Your task to perform on an android device: open the mobile data screen to see how much data has been used Image 0: 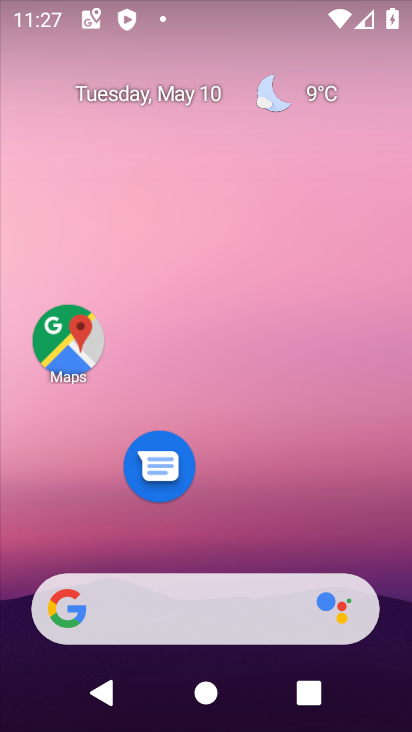
Step 0: drag from (263, 516) to (235, 122)
Your task to perform on an android device: open the mobile data screen to see how much data has been used Image 1: 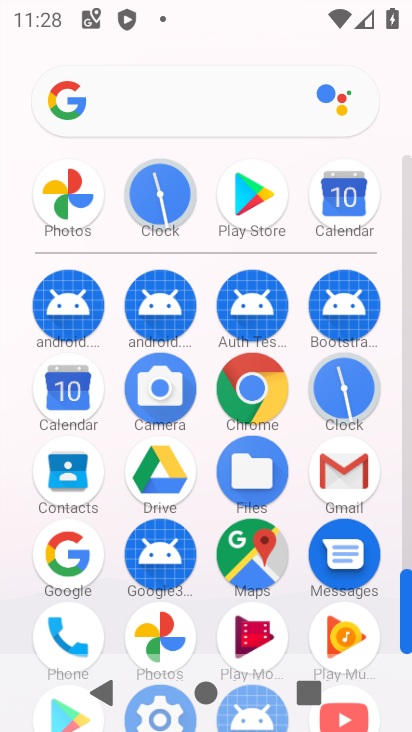
Step 1: drag from (197, 534) to (221, 383)
Your task to perform on an android device: open the mobile data screen to see how much data has been used Image 2: 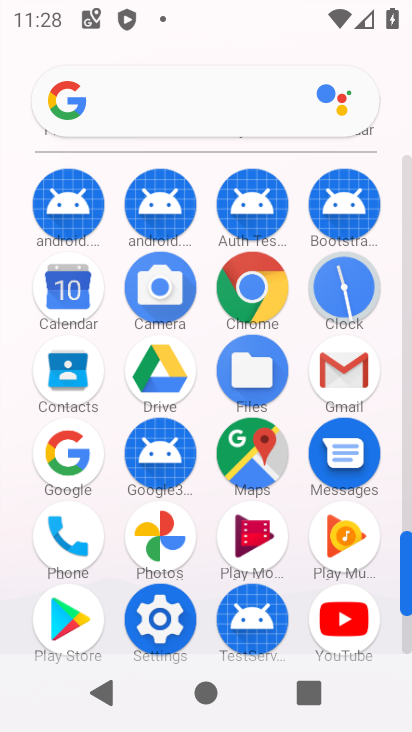
Step 2: drag from (195, 511) to (206, 428)
Your task to perform on an android device: open the mobile data screen to see how much data has been used Image 3: 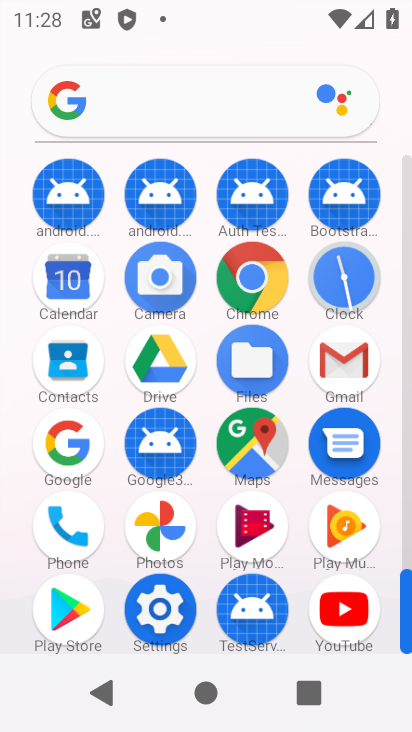
Step 3: click (152, 614)
Your task to perform on an android device: open the mobile data screen to see how much data has been used Image 4: 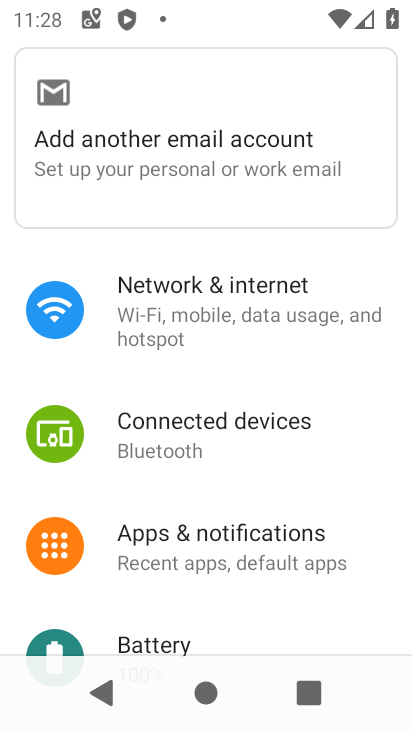
Step 4: click (234, 331)
Your task to perform on an android device: open the mobile data screen to see how much data has been used Image 5: 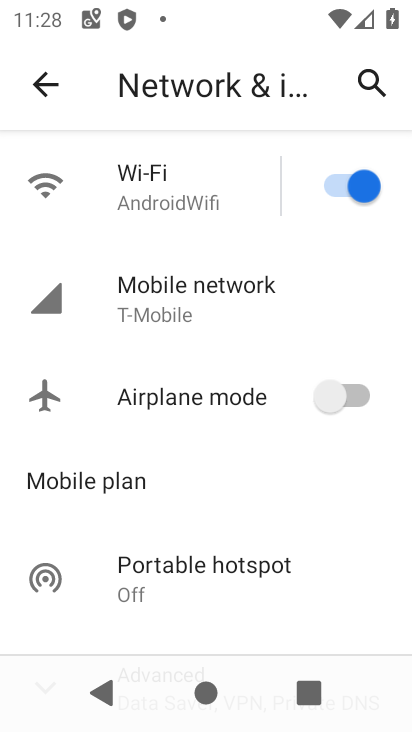
Step 5: click (60, 290)
Your task to perform on an android device: open the mobile data screen to see how much data has been used Image 6: 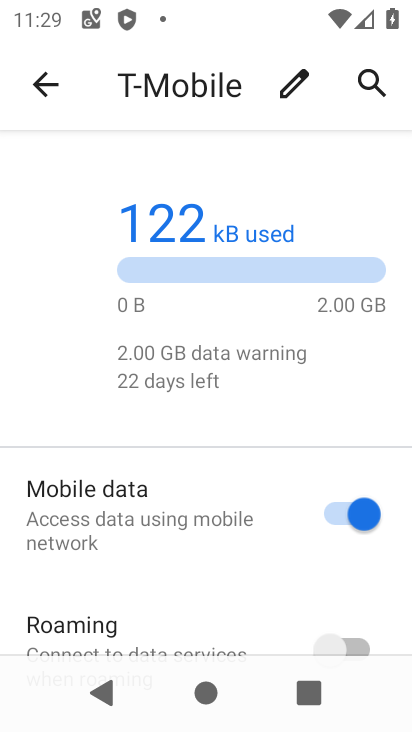
Step 6: task complete